Your task to perform on an android device: Open settings Image 0: 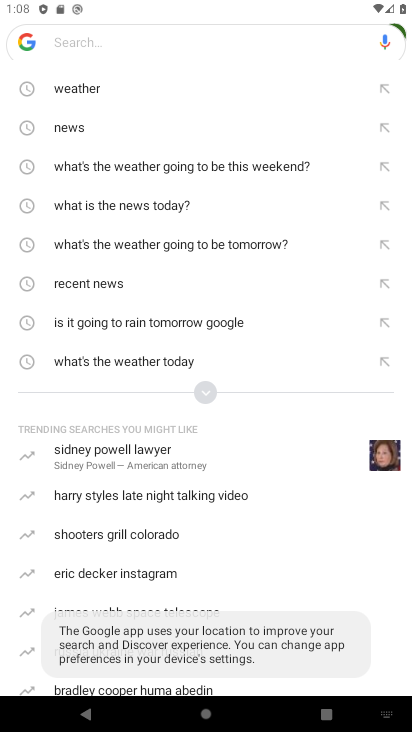
Step 0: press home button
Your task to perform on an android device: Open settings Image 1: 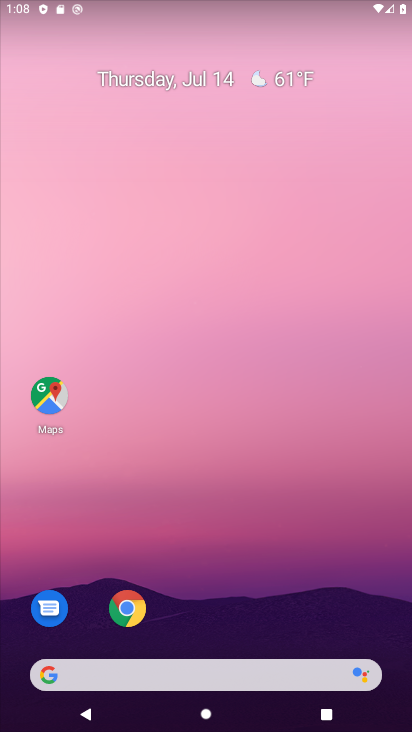
Step 1: drag from (131, 653) to (147, 210)
Your task to perform on an android device: Open settings Image 2: 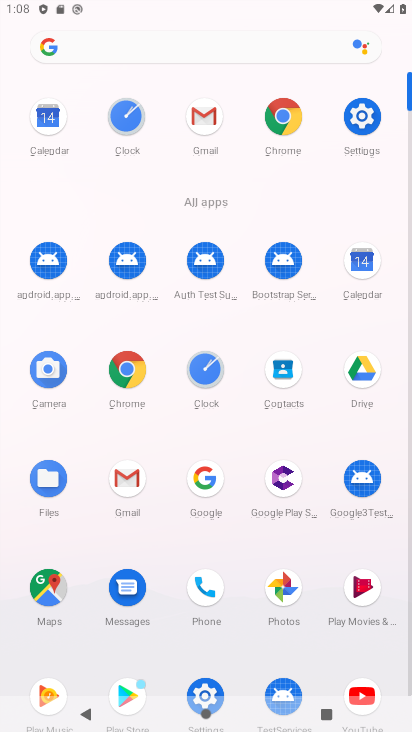
Step 2: click (356, 125)
Your task to perform on an android device: Open settings Image 3: 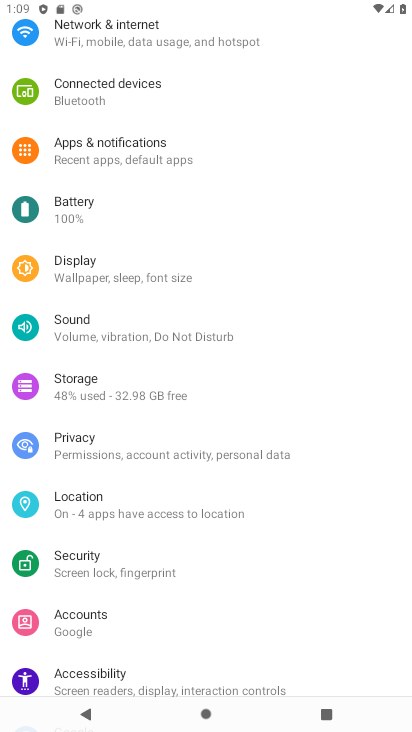
Step 3: task complete